Your task to perform on an android device: turn off notifications in google photos Image 0: 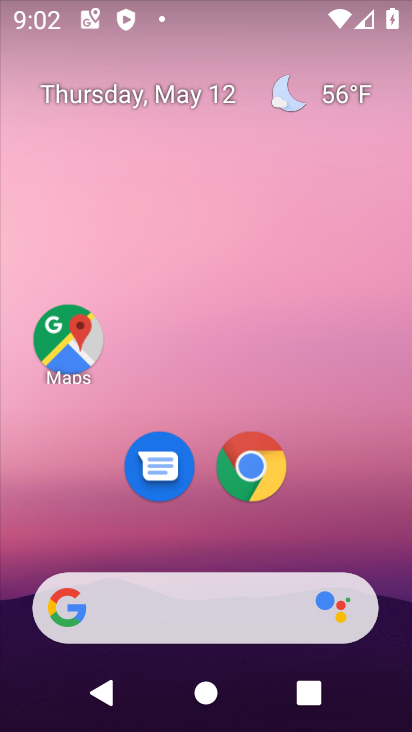
Step 0: drag from (322, 498) to (311, 104)
Your task to perform on an android device: turn off notifications in google photos Image 1: 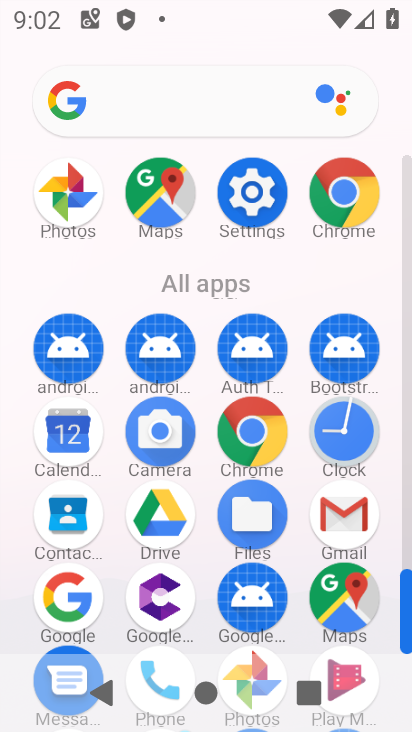
Step 1: click (74, 216)
Your task to perform on an android device: turn off notifications in google photos Image 2: 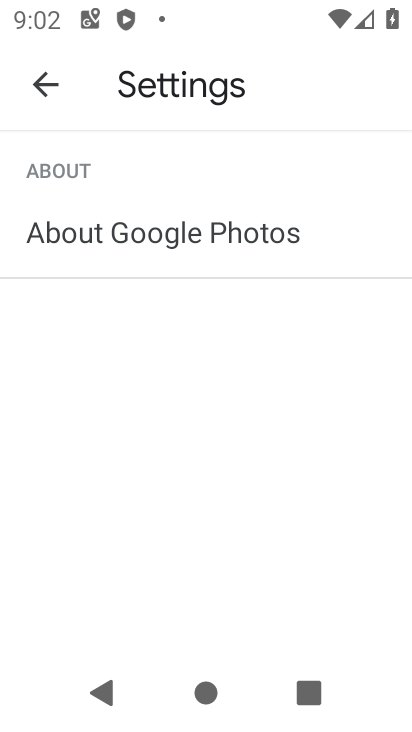
Step 2: press back button
Your task to perform on an android device: turn off notifications in google photos Image 3: 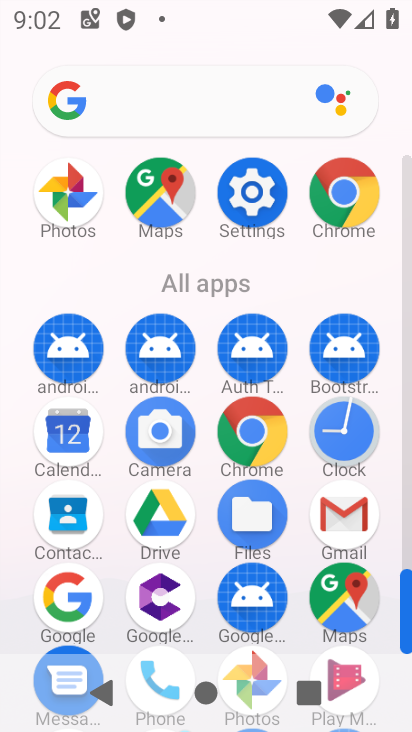
Step 3: click (68, 208)
Your task to perform on an android device: turn off notifications in google photos Image 4: 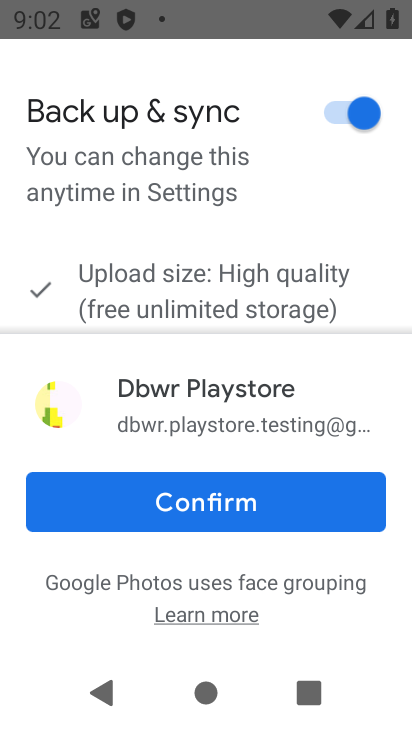
Step 4: click (146, 492)
Your task to perform on an android device: turn off notifications in google photos Image 5: 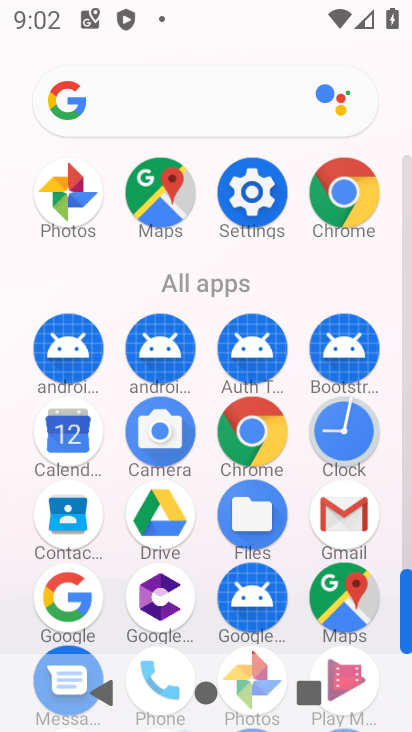
Step 5: click (68, 210)
Your task to perform on an android device: turn off notifications in google photos Image 6: 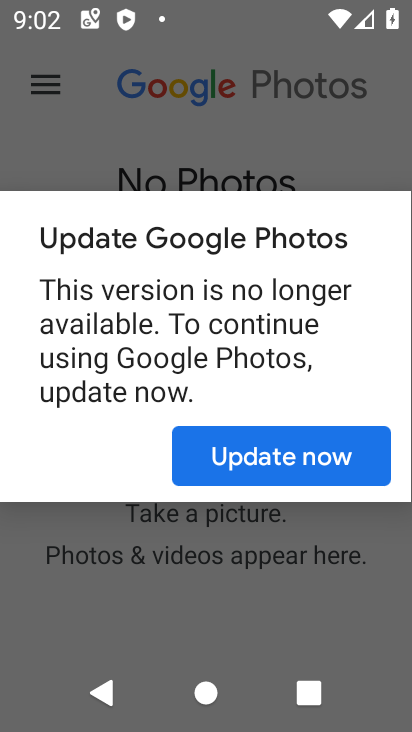
Step 6: click (257, 468)
Your task to perform on an android device: turn off notifications in google photos Image 7: 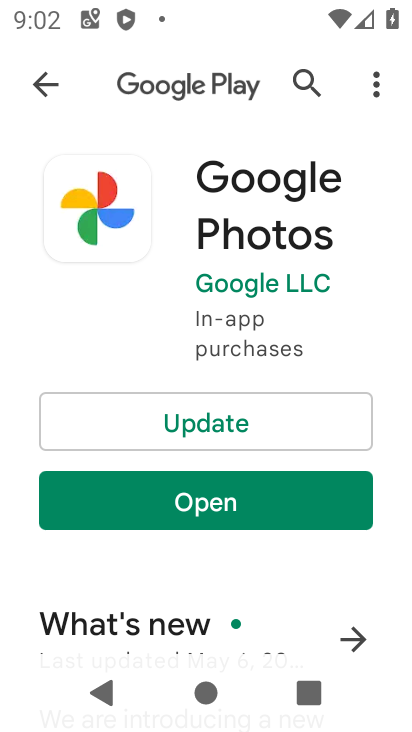
Step 7: click (214, 423)
Your task to perform on an android device: turn off notifications in google photos Image 8: 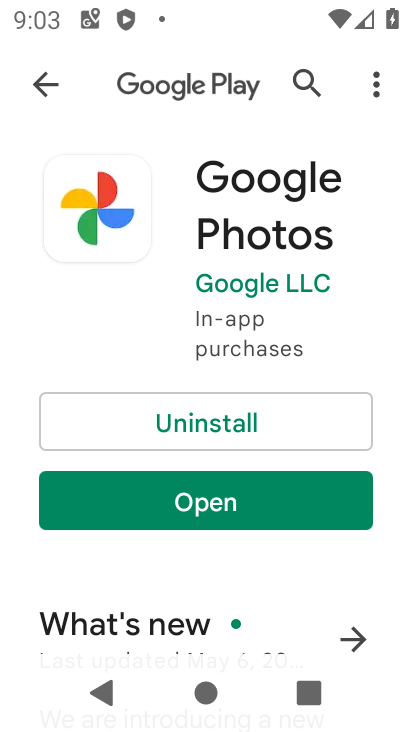
Step 8: click (182, 504)
Your task to perform on an android device: turn off notifications in google photos Image 9: 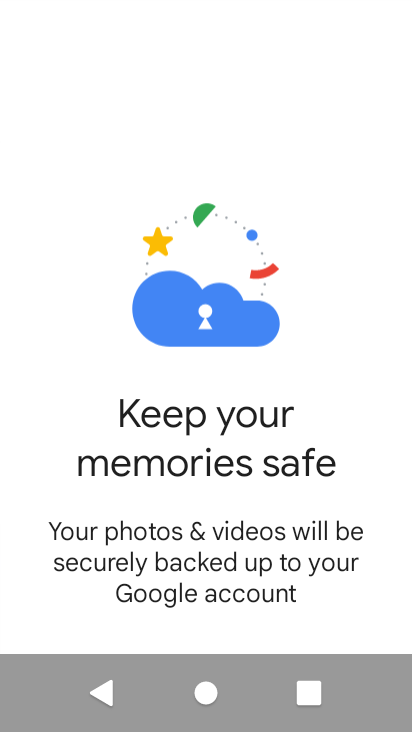
Step 9: press back button
Your task to perform on an android device: turn off notifications in google photos Image 10: 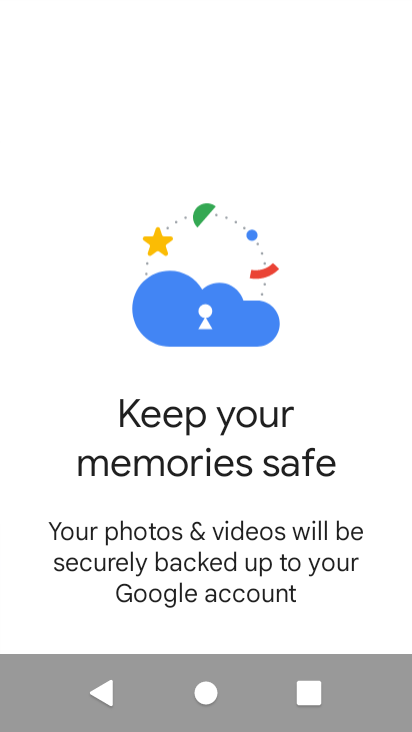
Step 10: press back button
Your task to perform on an android device: turn off notifications in google photos Image 11: 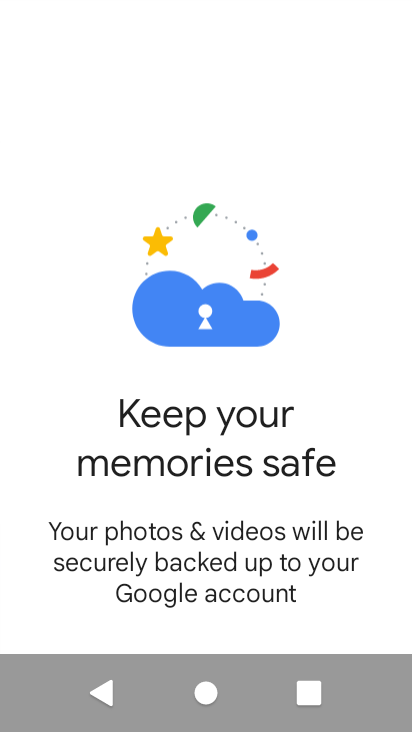
Step 11: click (103, 706)
Your task to perform on an android device: turn off notifications in google photos Image 12: 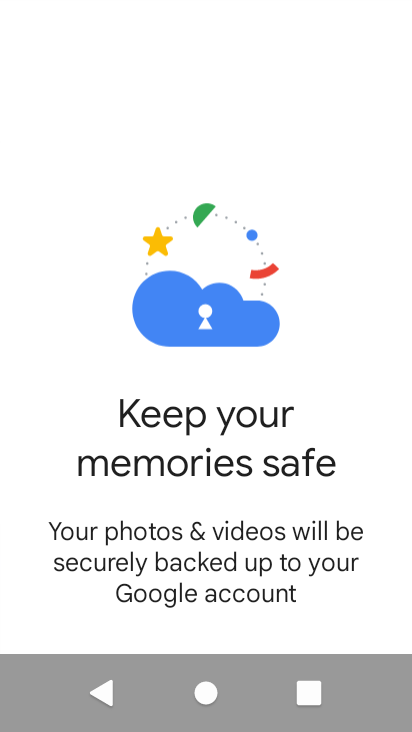
Step 12: press back button
Your task to perform on an android device: turn off notifications in google photos Image 13: 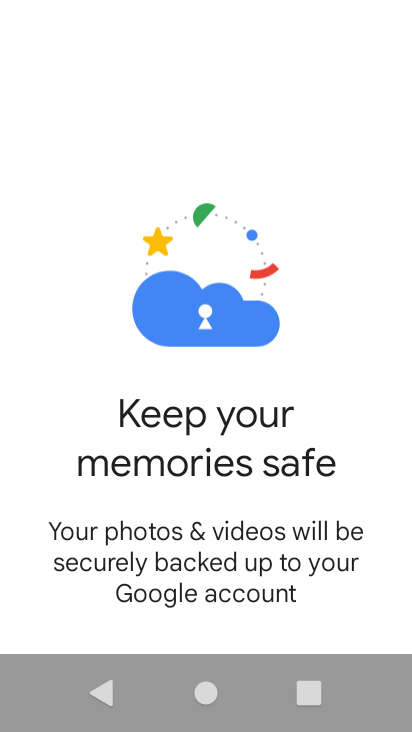
Step 13: press home button
Your task to perform on an android device: turn off notifications in google photos Image 14: 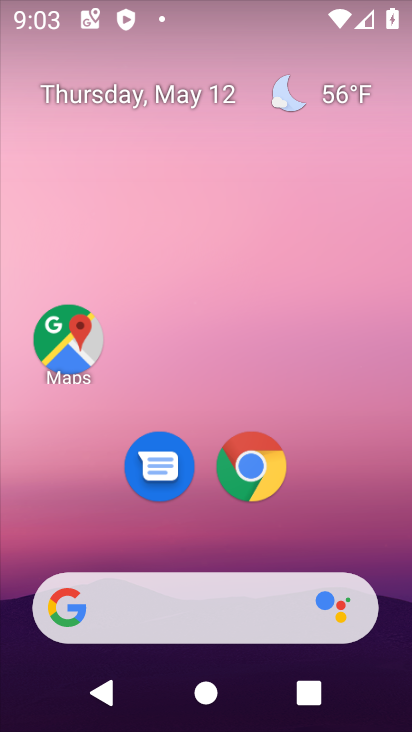
Step 14: drag from (307, 454) to (280, 107)
Your task to perform on an android device: turn off notifications in google photos Image 15: 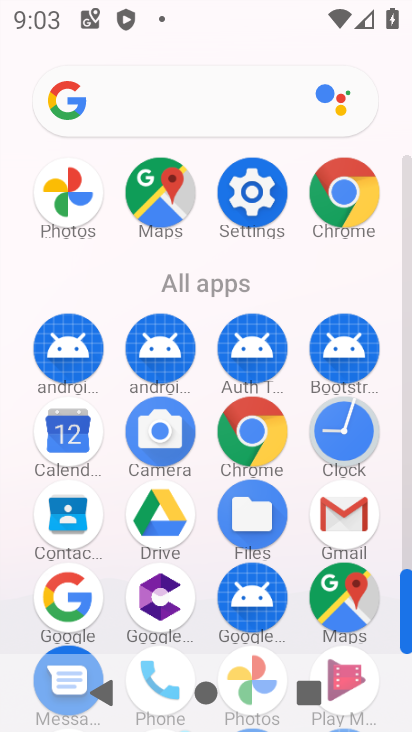
Step 15: click (63, 190)
Your task to perform on an android device: turn off notifications in google photos Image 16: 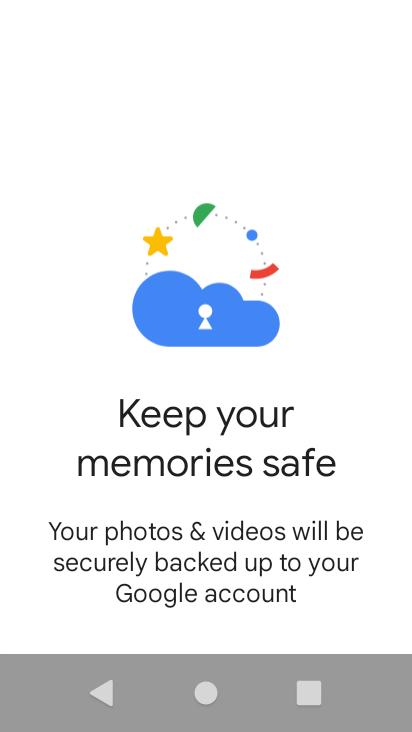
Step 16: task complete